Your task to perform on an android device: turn off translation in the chrome app Image 0: 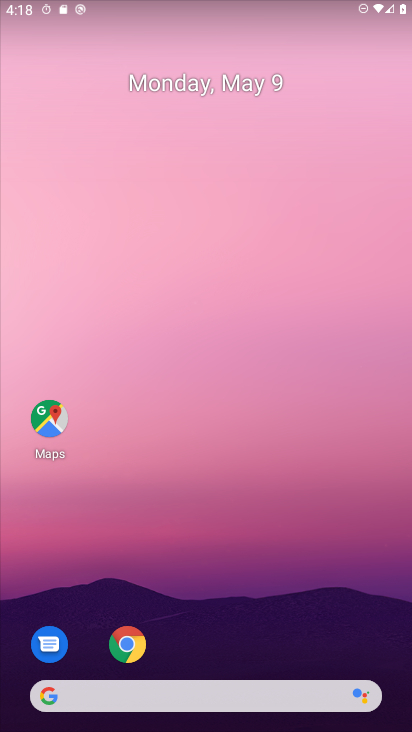
Step 0: drag from (0, 0) to (224, 102)
Your task to perform on an android device: turn off translation in the chrome app Image 1: 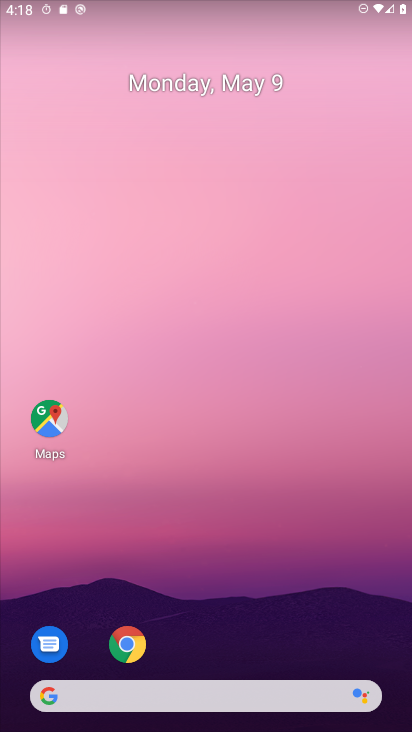
Step 1: drag from (275, 610) to (258, 208)
Your task to perform on an android device: turn off translation in the chrome app Image 2: 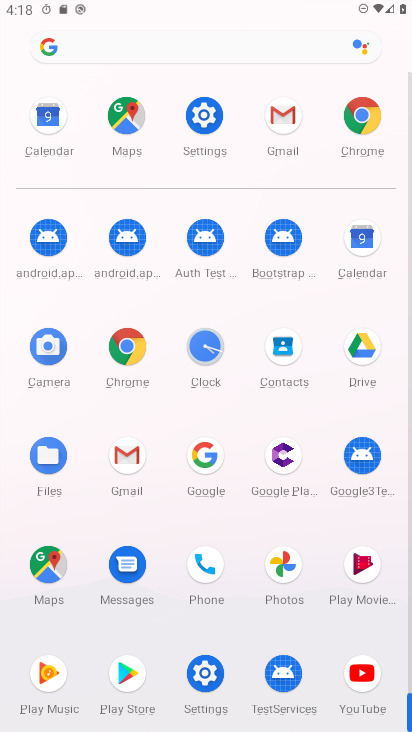
Step 2: click (360, 152)
Your task to perform on an android device: turn off translation in the chrome app Image 3: 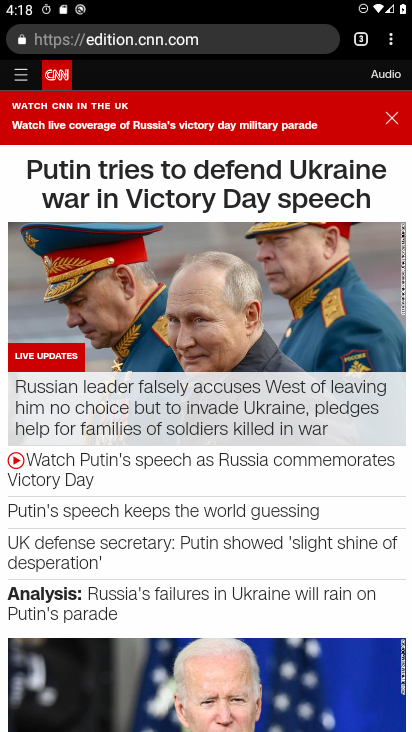
Step 3: click (389, 37)
Your task to perform on an android device: turn off translation in the chrome app Image 4: 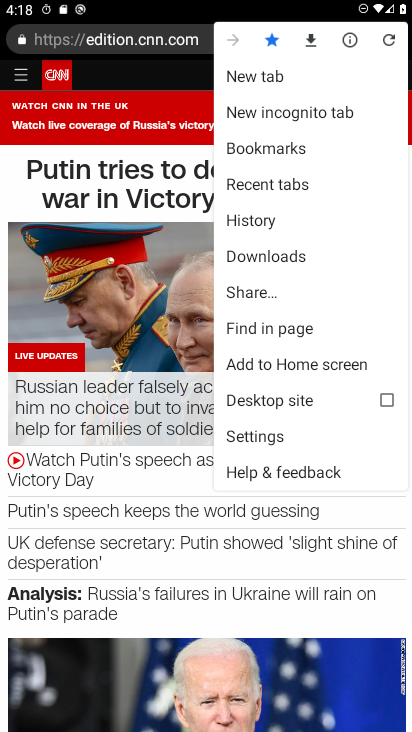
Step 4: click (266, 439)
Your task to perform on an android device: turn off translation in the chrome app Image 5: 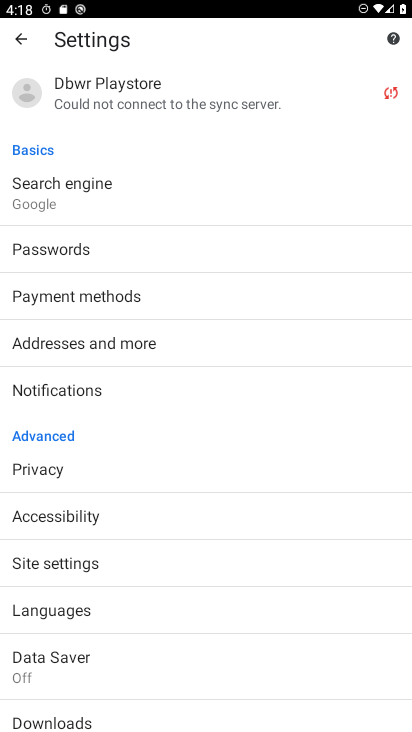
Step 5: drag from (78, 671) to (25, 287)
Your task to perform on an android device: turn off translation in the chrome app Image 6: 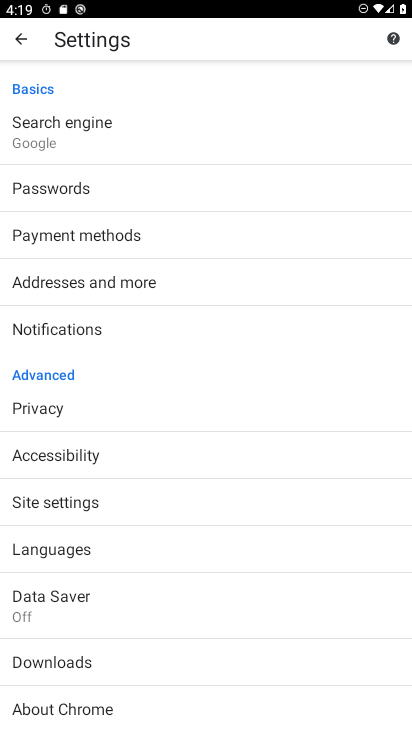
Step 6: click (65, 553)
Your task to perform on an android device: turn off translation in the chrome app Image 7: 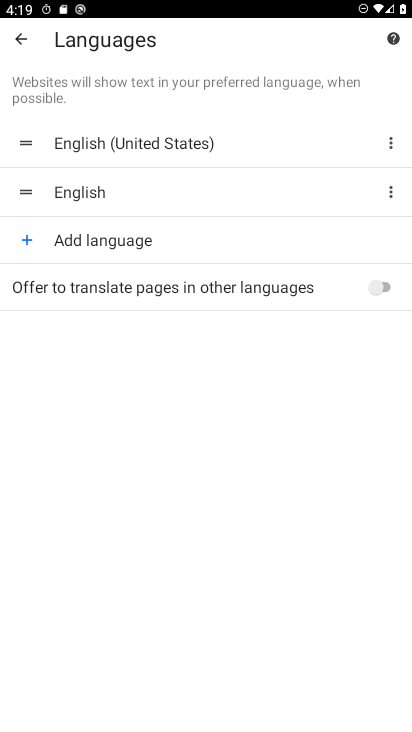
Step 7: task complete